Your task to perform on an android device: Clear the cart on walmart. Search for dell xps on walmart, select the first entry, and add it to the cart. Image 0: 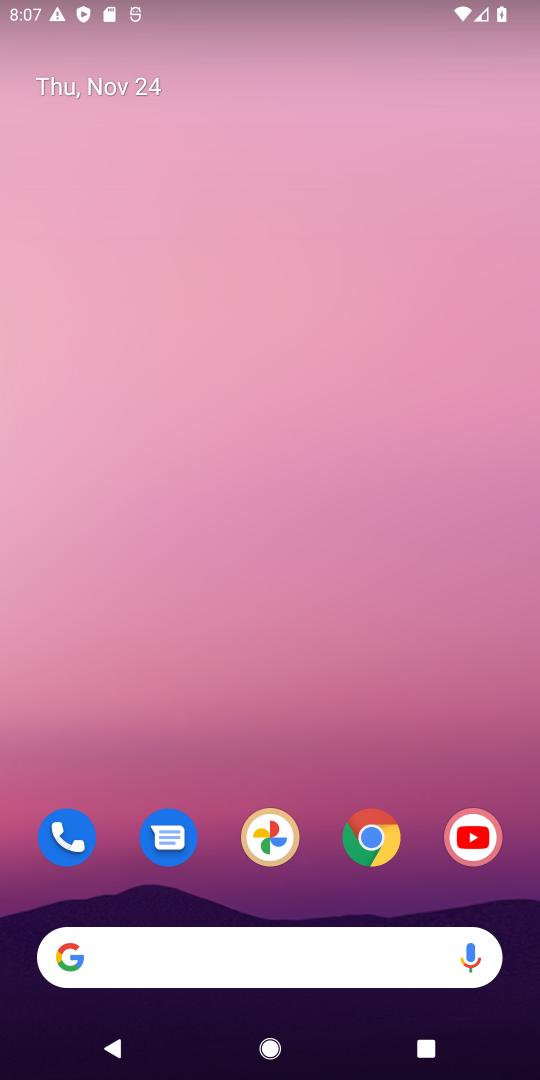
Step 0: click (360, 849)
Your task to perform on an android device: Clear the cart on walmart. Search for dell xps on walmart, select the first entry, and add it to the cart. Image 1: 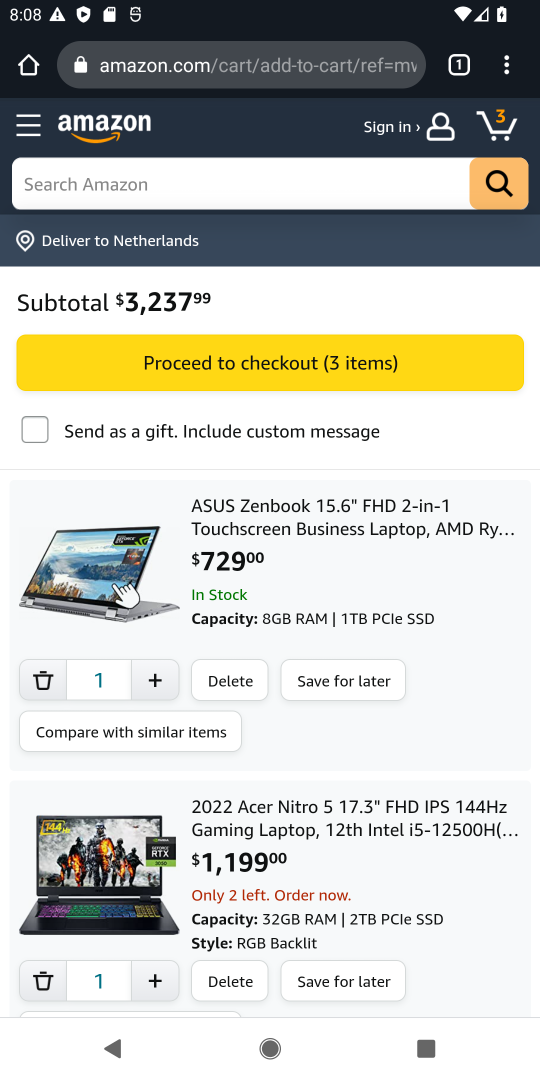
Step 1: click (259, 70)
Your task to perform on an android device: Clear the cart on walmart. Search for dell xps on walmart, select the first entry, and add it to the cart. Image 2: 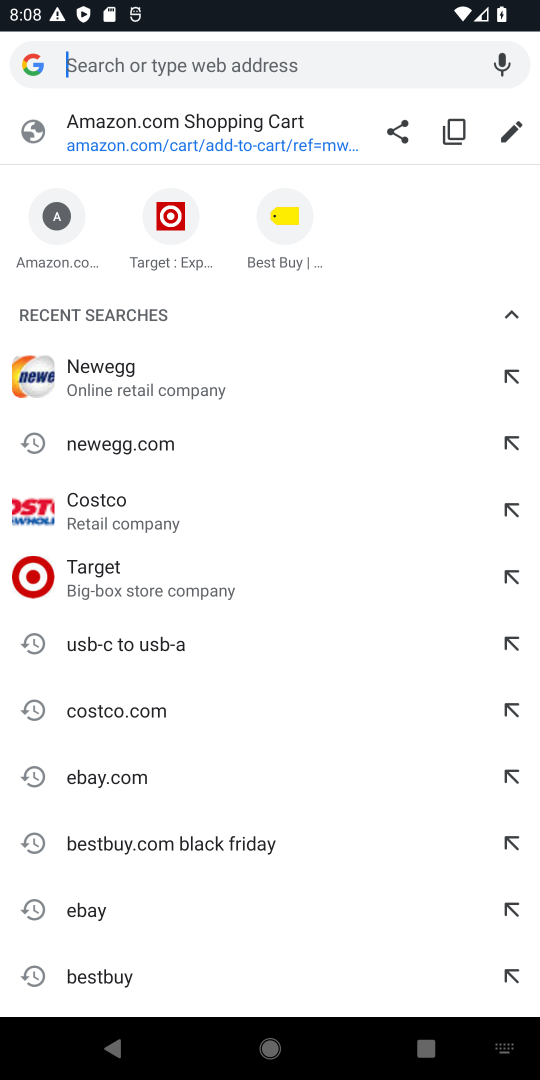
Step 2: type "walmart.com"
Your task to perform on an android device: Clear the cart on walmart. Search for dell xps on walmart, select the first entry, and add it to the cart. Image 3: 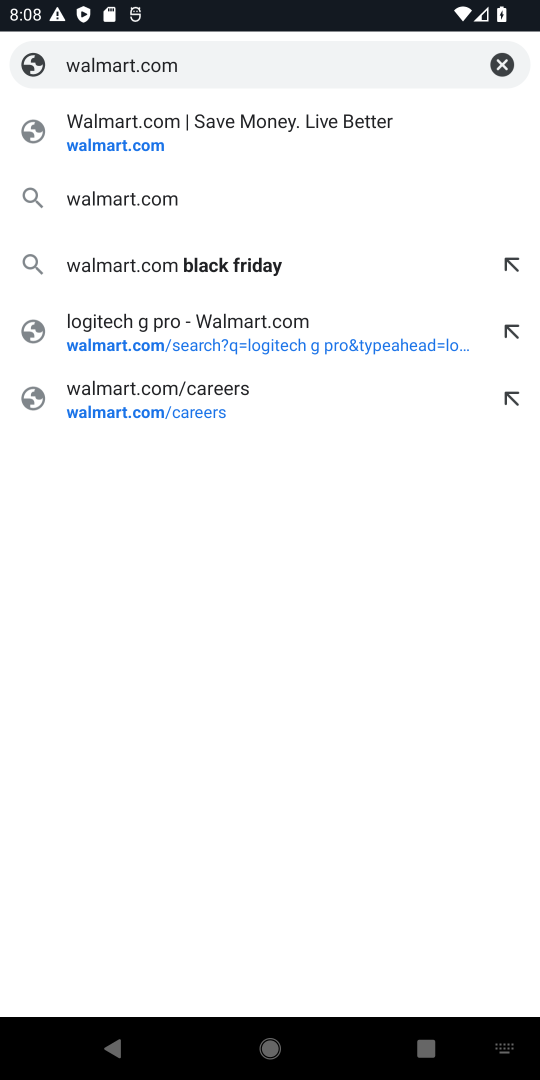
Step 3: click (150, 126)
Your task to perform on an android device: Clear the cart on walmart. Search for dell xps on walmart, select the first entry, and add it to the cart. Image 4: 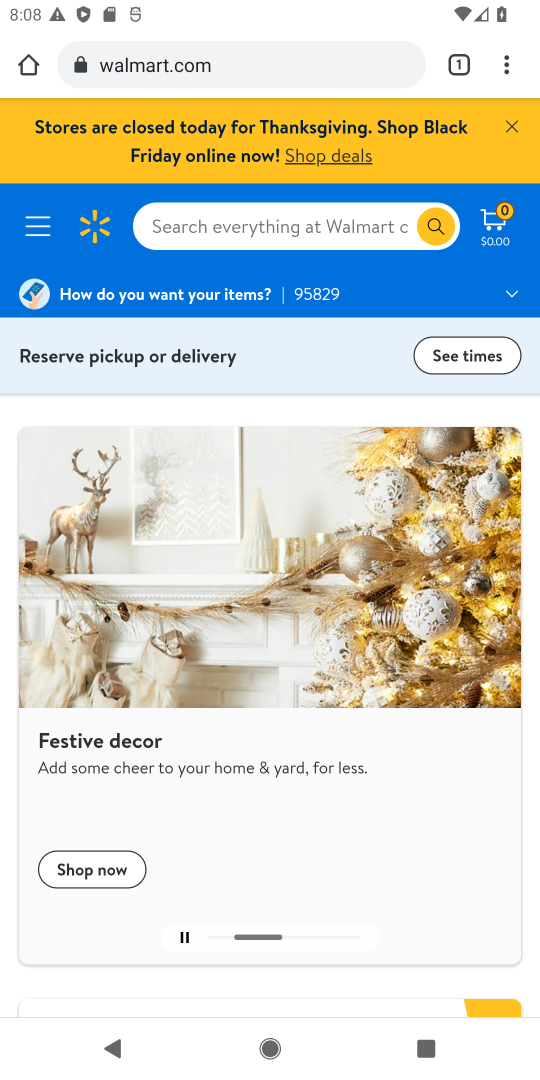
Step 4: click (278, 225)
Your task to perform on an android device: Clear the cart on walmart. Search for dell xps on walmart, select the first entry, and add it to the cart. Image 5: 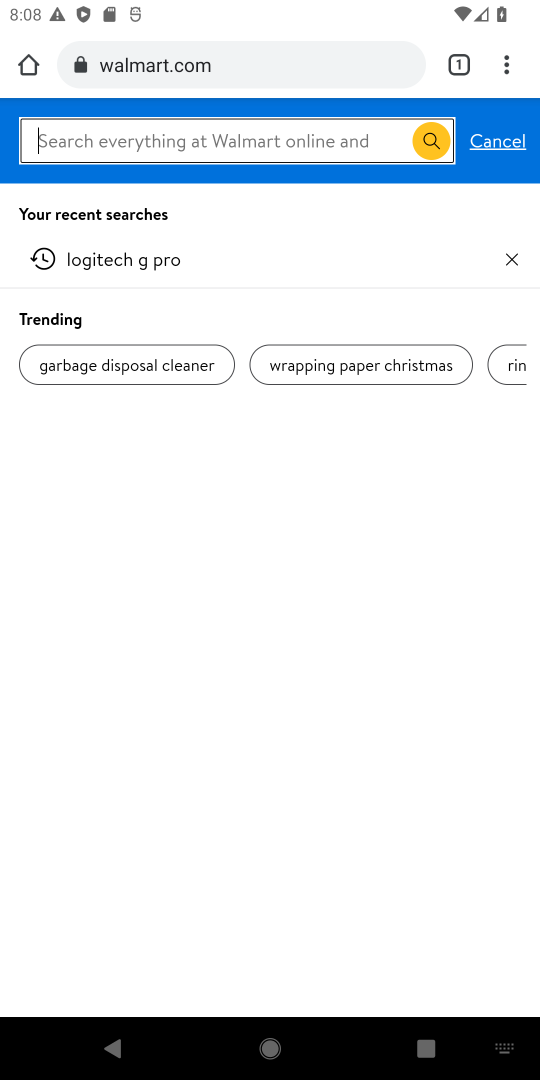
Step 5: type "dell xps"
Your task to perform on an android device: Clear the cart on walmart. Search for dell xps on walmart, select the first entry, and add it to the cart. Image 6: 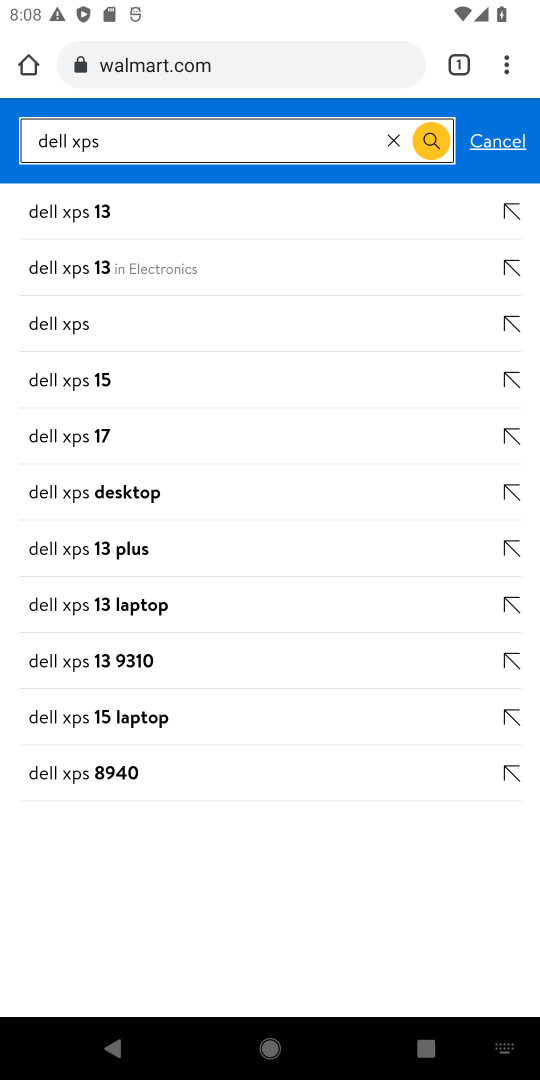
Step 6: click (95, 325)
Your task to perform on an android device: Clear the cart on walmart. Search for dell xps on walmart, select the first entry, and add it to the cart. Image 7: 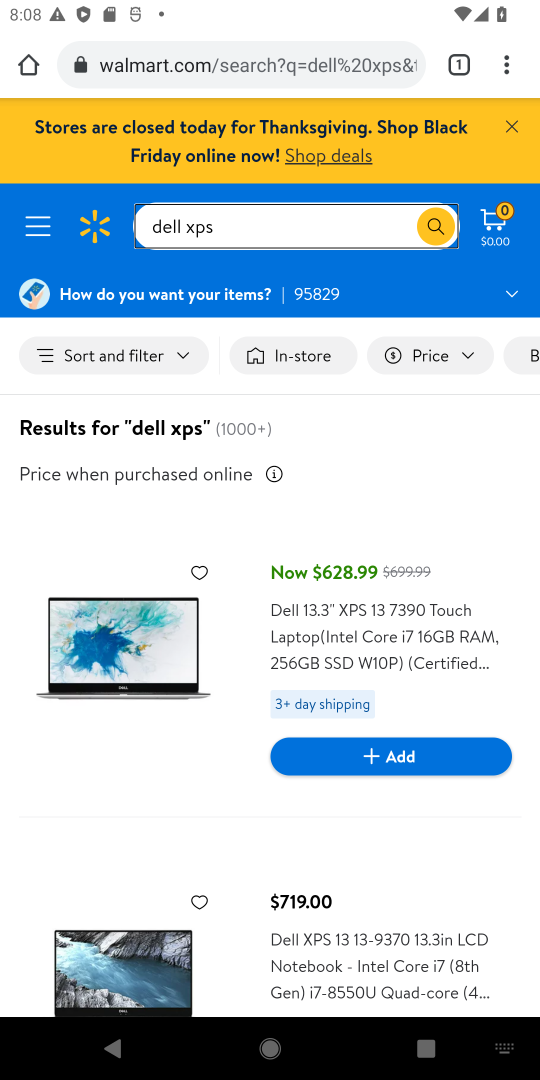
Step 7: click (404, 757)
Your task to perform on an android device: Clear the cart on walmart. Search for dell xps on walmart, select the first entry, and add it to the cart. Image 8: 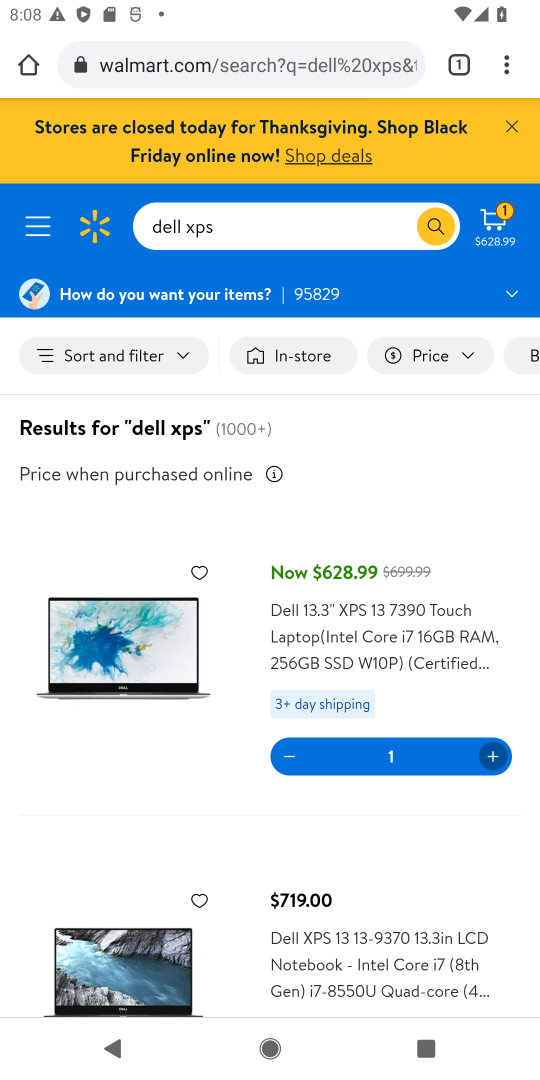
Step 8: task complete